Your task to perform on an android device: change the upload size in google photos Image 0: 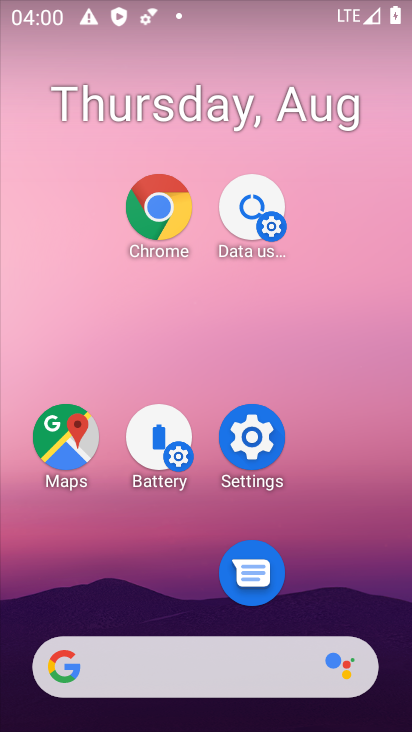
Step 0: click (408, 494)
Your task to perform on an android device: change the upload size in google photos Image 1: 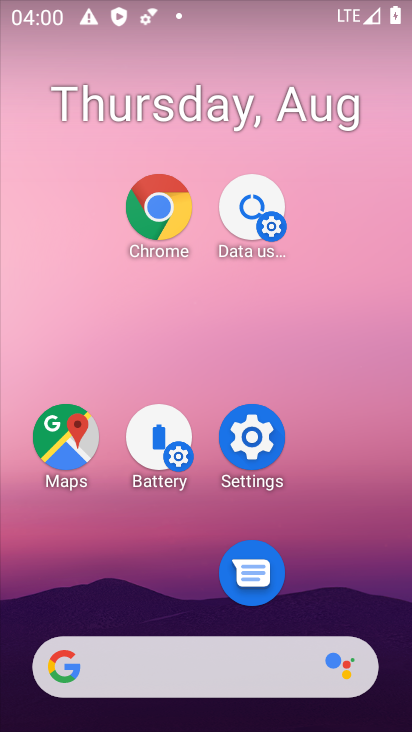
Step 1: drag from (169, 568) to (64, 142)
Your task to perform on an android device: change the upload size in google photos Image 2: 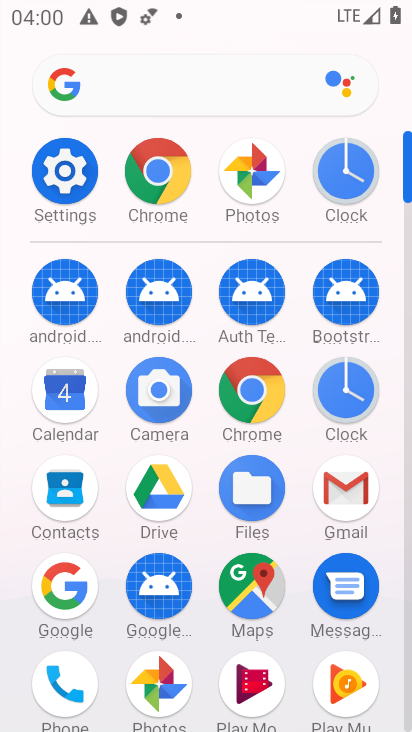
Step 2: click (247, 181)
Your task to perform on an android device: change the upload size in google photos Image 3: 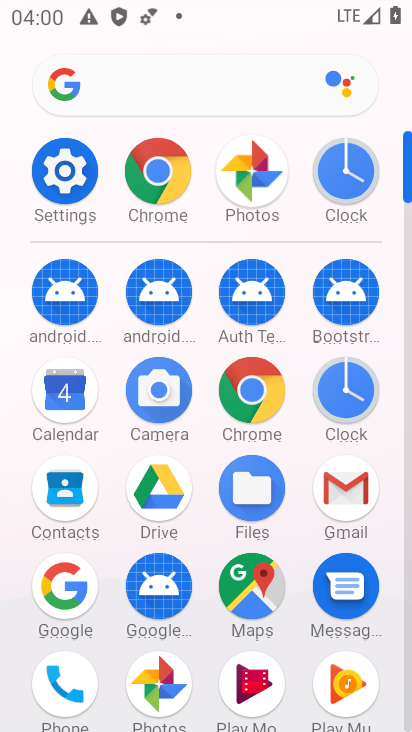
Step 3: click (247, 179)
Your task to perform on an android device: change the upload size in google photos Image 4: 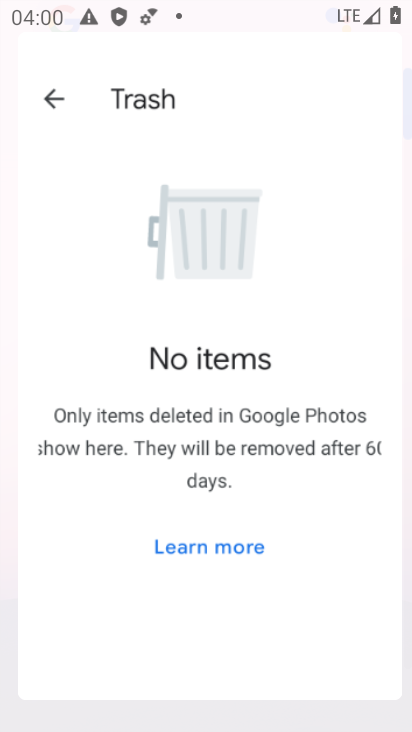
Step 4: click (247, 180)
Your task to perform on an android device: change the upload size in google photos Image 5: 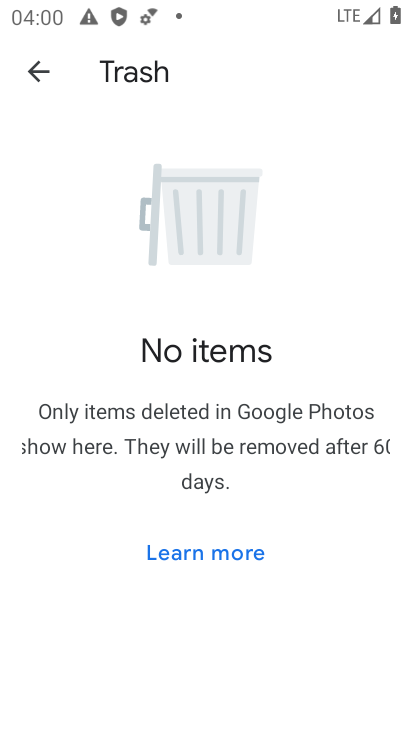
Step 5: click (249, 179)
Your task to perform on an android device: change the upload size in google photos Image 6: 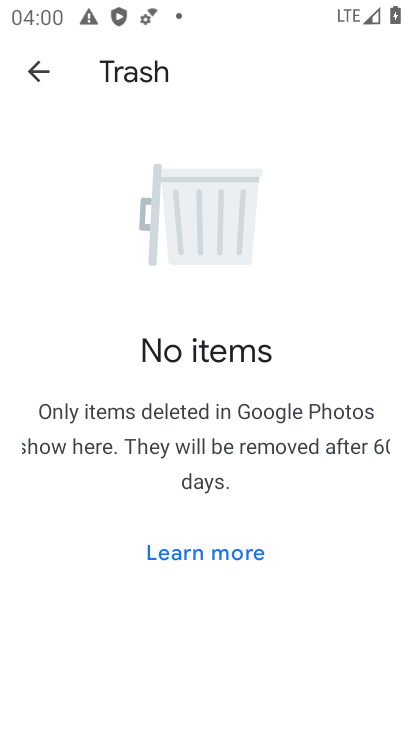
Step 6: click (32, 61)
Your task to perform on an android device: change the upload size in google photos Image 7: 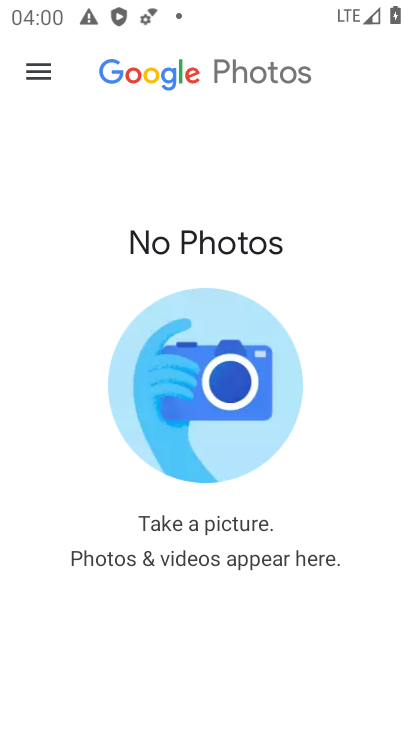
Step 7: press back button
Your task to perform on an android device: change the upload size in google photos Image 8: 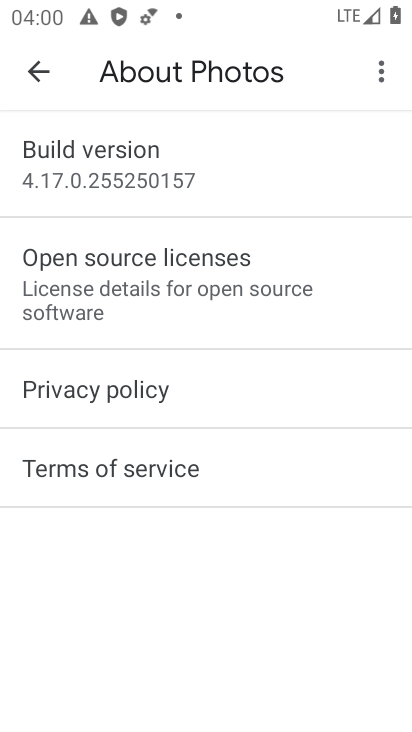
Step 8: click (40, 56)
Your task to perform on an android device: change the upload size in google photos Image 9: 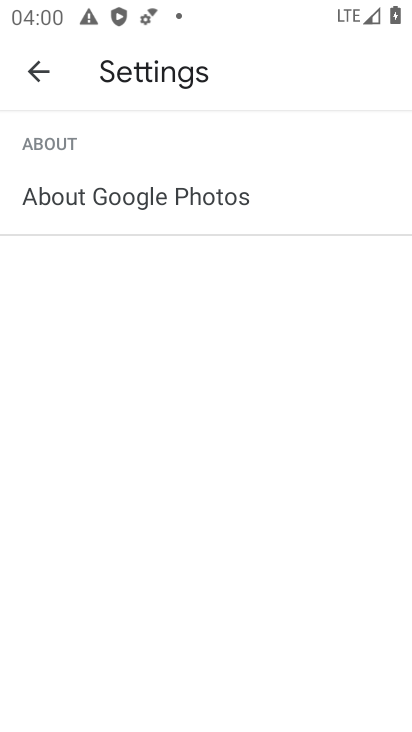
Step 9: click (116, 198)
Your task to perform on an android device: change the upload size in google photos Image 10: 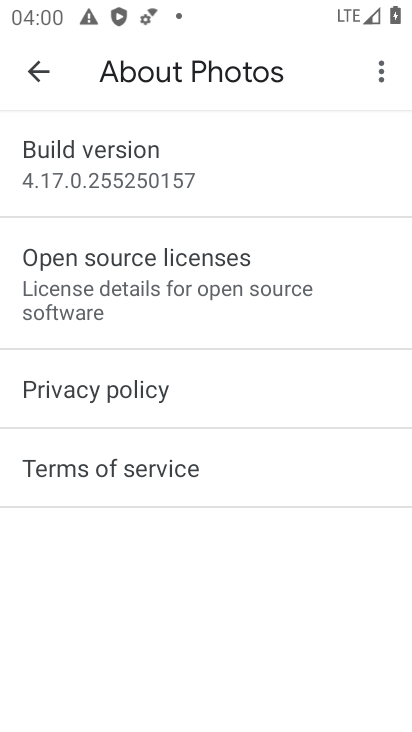
Step 10: click (128, 156)
Your task to perform on an android device: change the upload size in google photos Image 11: 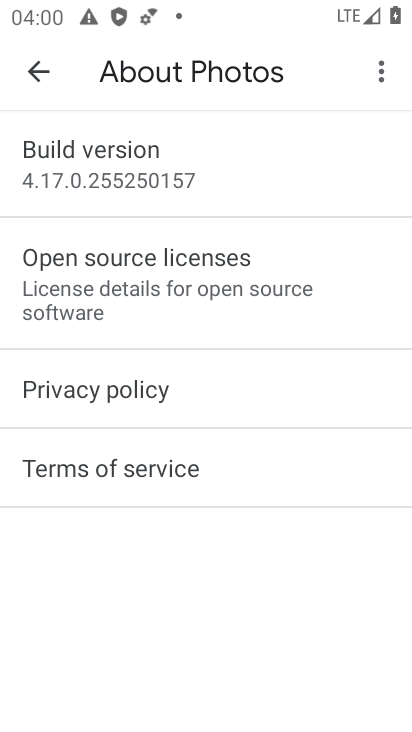
Step 11: task complete